Your task to perform on an android device: Open Google Image 0: 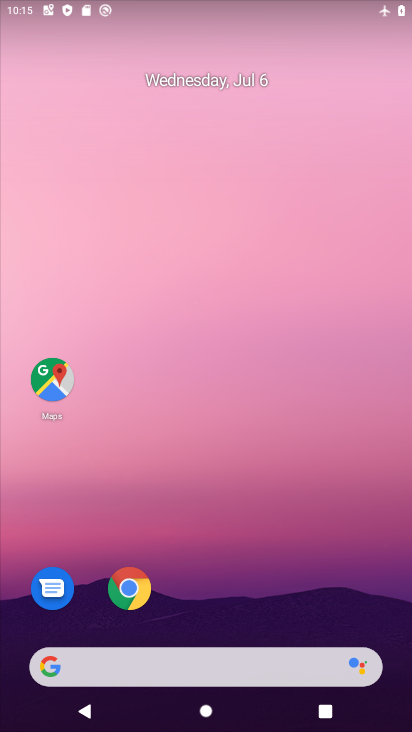
Step 0: drag from (208, 581) to (223, 233)
Your task to perform on an android device: Open Google Image 1: 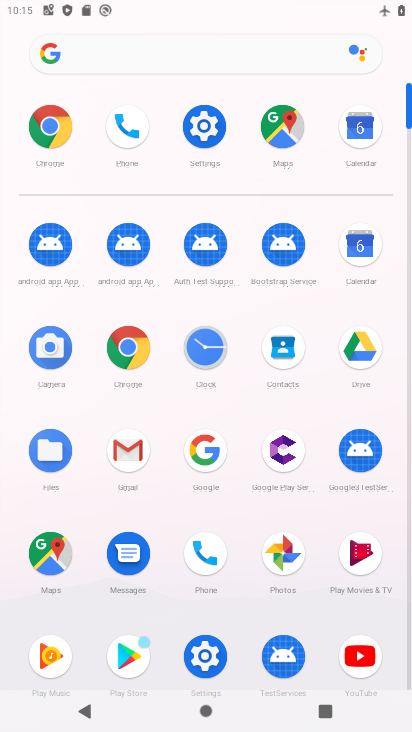
Step 1: click (202, 460)
Your task to perform on an android device: Open Google Image 2: 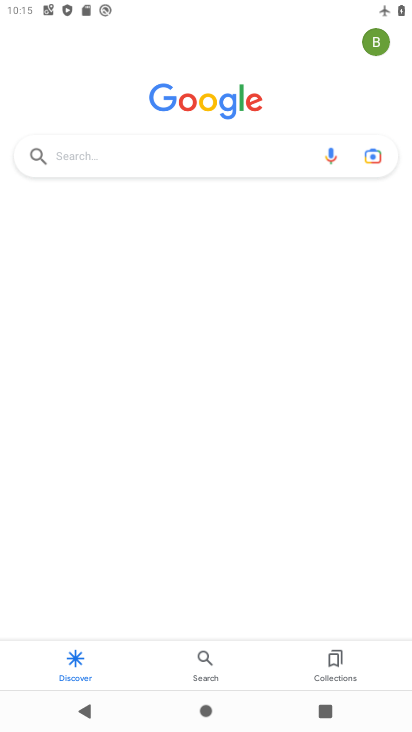
Step 2: task complete